Your task to perform on an android device: toggle airplane mode Image 0: 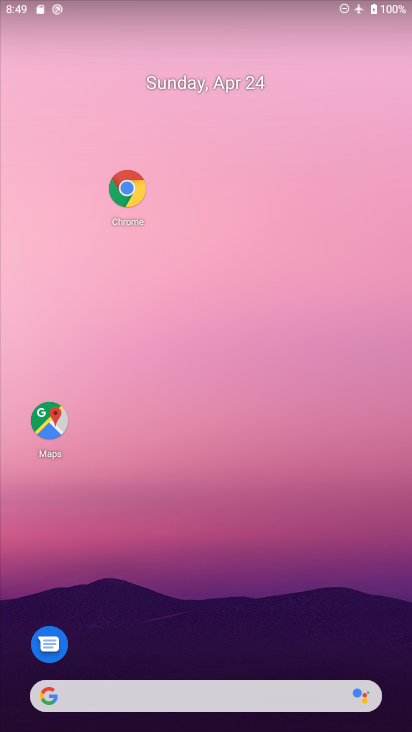
Step 0: drag from (128, 645) to (276, 135)
Your task to perform on an android device: toggle airplane mode Image 1: 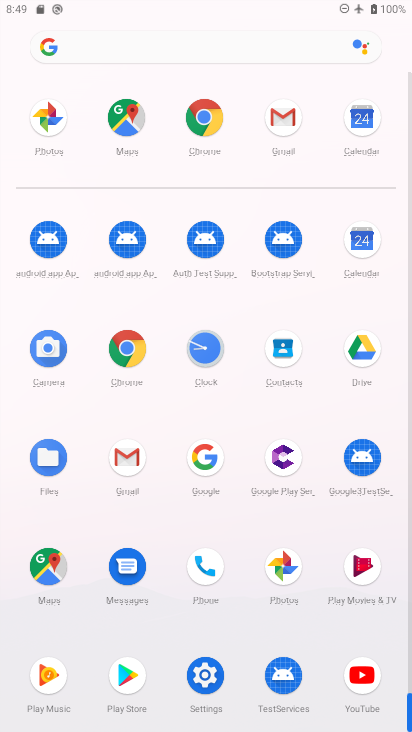
Step 1: click (200, 667)
Your task to perform on an android device: toggle airplane mode Image 2: 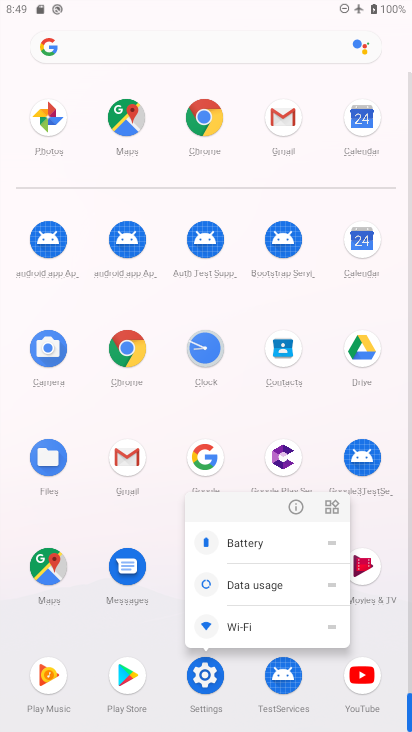
Step 2: click (293, 499)
Your task to perform on an android device: toggle airplane mode Image 3: 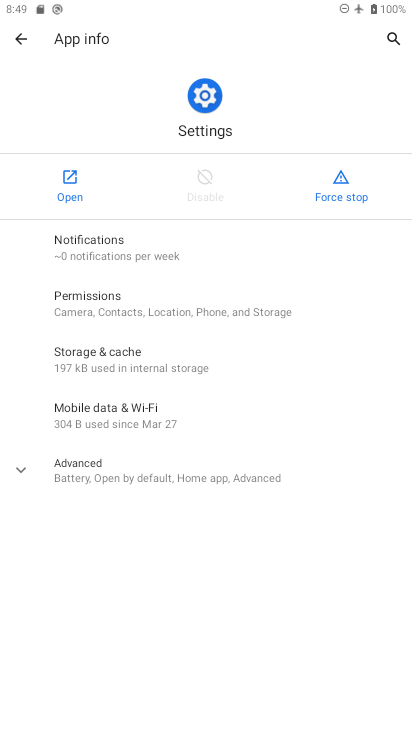
Step 3: click (78, 197)
Your task to perform on an android device: toggle airplane mode Image 4: 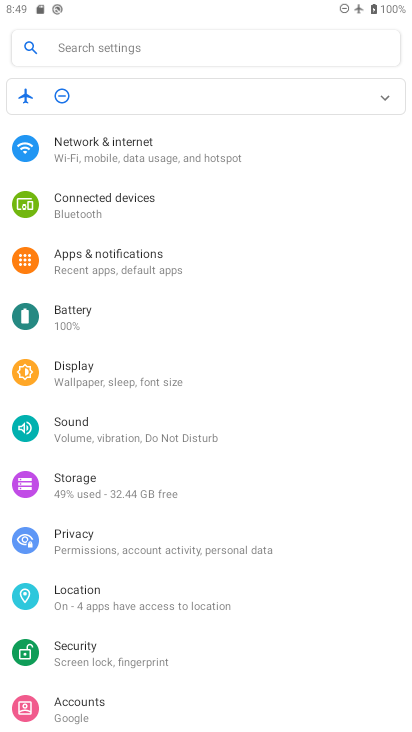
Step 4: click (186, 157)
Your task to perform on an android device: toggle airplane mode Image 5: 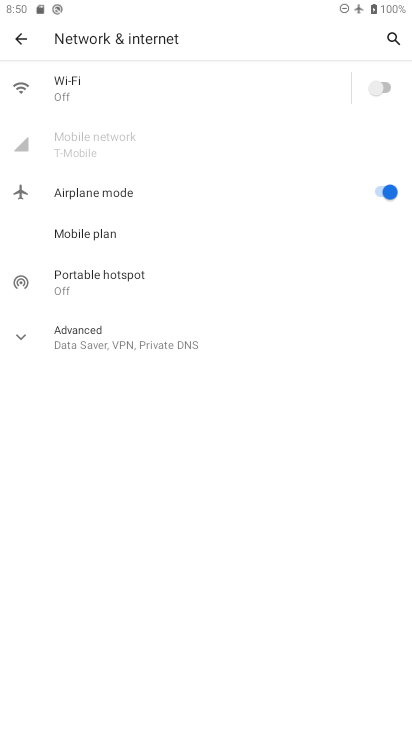
Step 5: click (365, 182)
Your task to perform on an android device: toggle airplane mode Image 6: 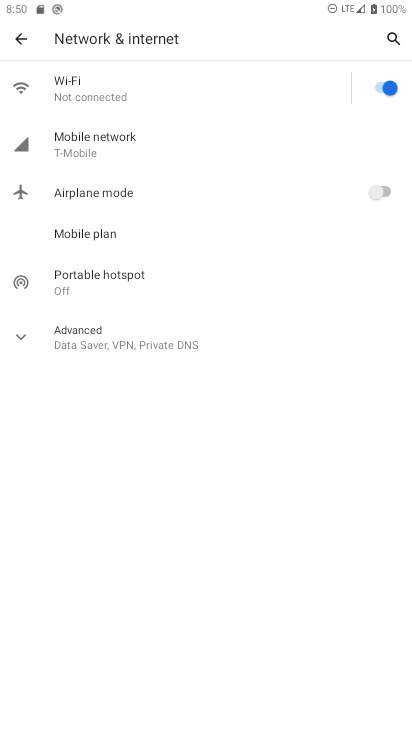
Step 6: task complete